Your task to perform on an android device: Go to eBay Image 0: 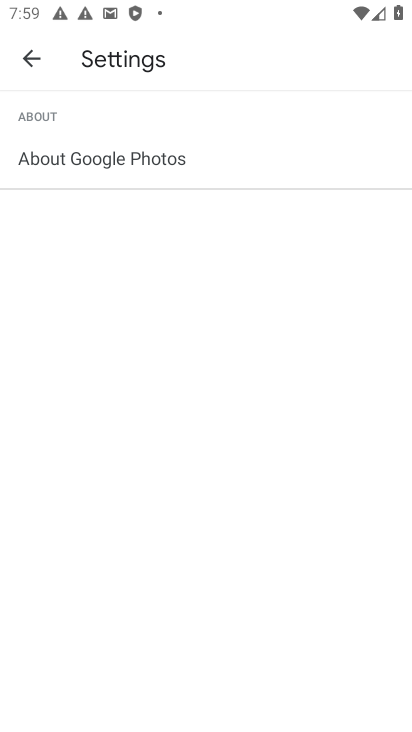
Step 0: press home button
Your task to perform on an android device: Go to eBay Image 1: 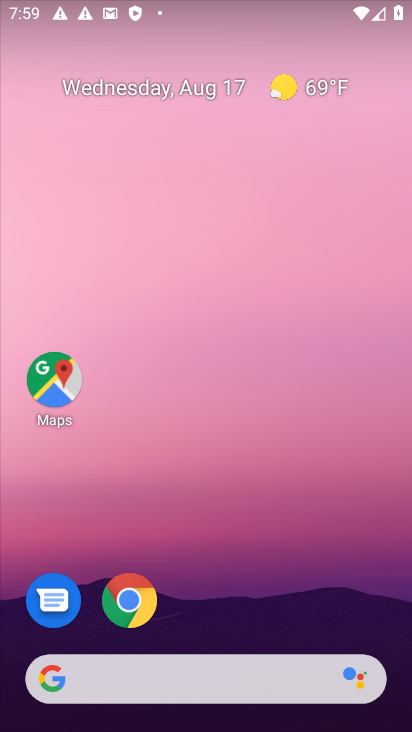
Step 1: click (43, 677)
Your task to perform on an android device: Go to eBay Image 2: 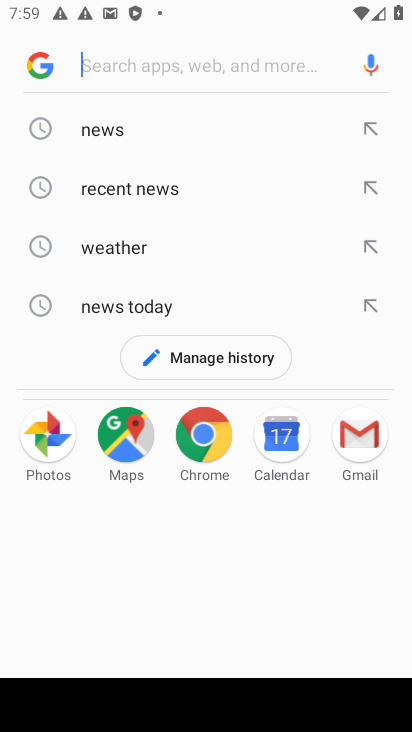
Step 2: type "eBay"
Your task to perform on an android device: Go to eBay Image 3: 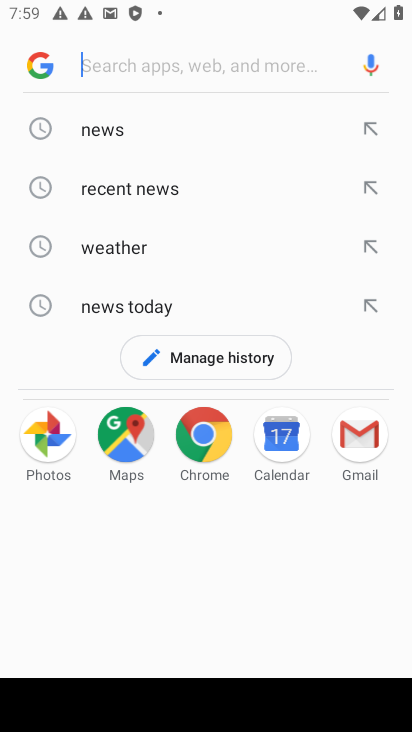
Step 3: click (101, 61)
Your task to perform on an android device: Go to eBay Image 4: 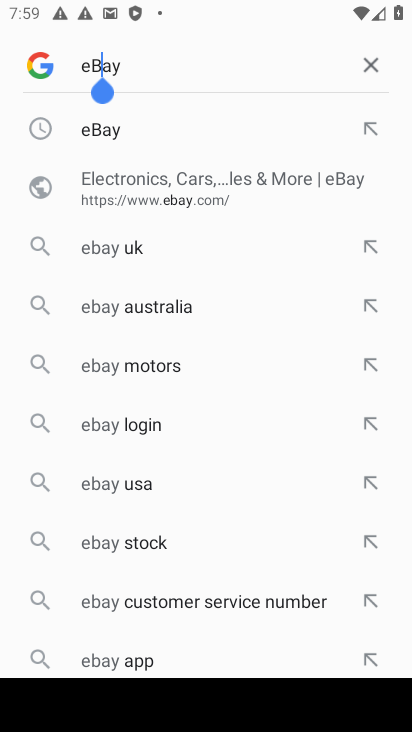
Step 4: click (90, 130)
Your task to perform on an android device: Go to eBay Image 5: 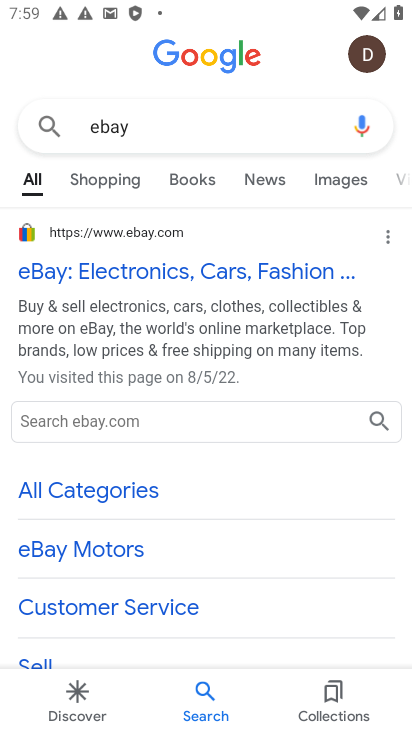
Step 5: click (199, 269)
Your task to perform on an android device: Go to eBay Image 6: 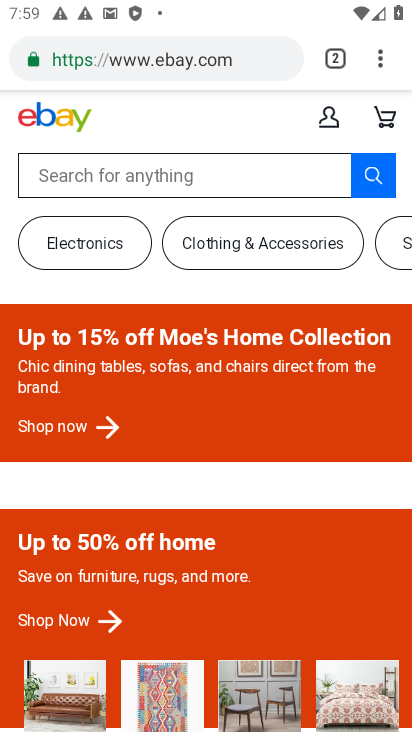
Step 6: task complete